Your task to perform on an android device: Do I have any events tomorrow? Image 0: 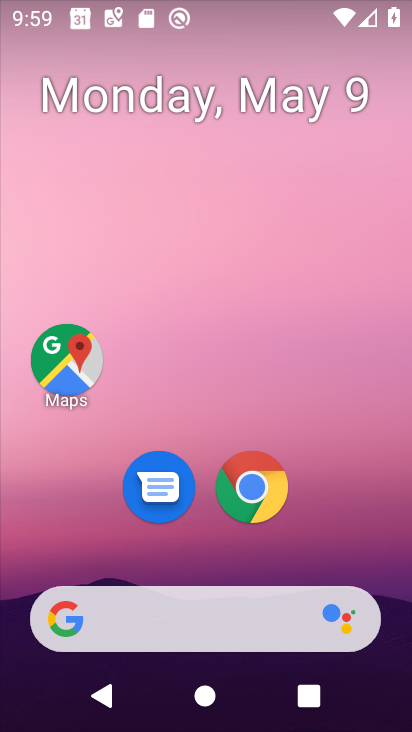
Step 0: drag from (344, 504) to (236, 39)
Your task to perform on an android device: Do I have any events tomorrow? Image 1: 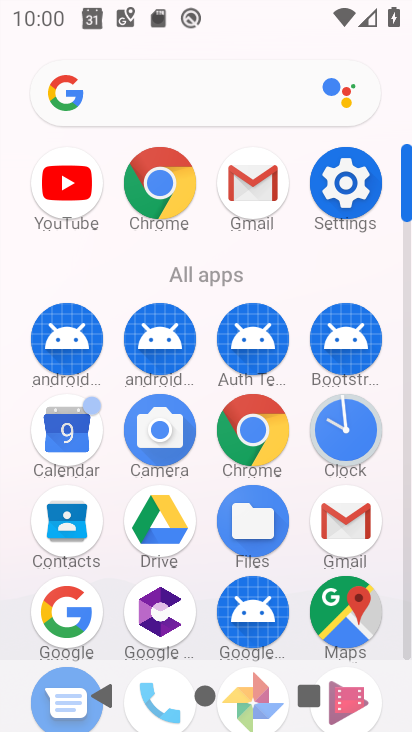
Step 1: drag from (8, 605) to (9, 243)
Your task to perform on an android device: Do I have any events tomorrow? Image 2: 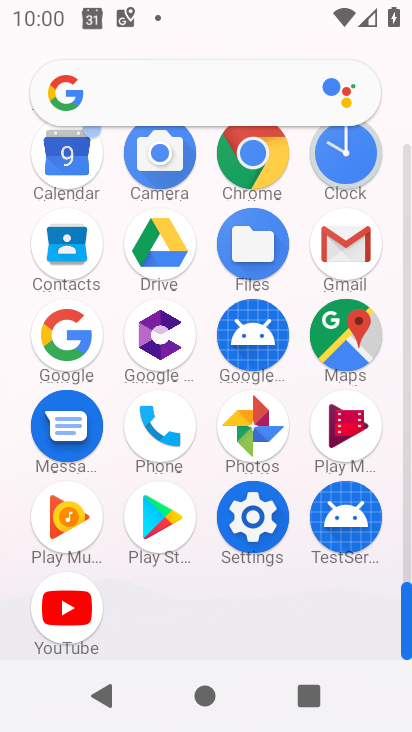
Step 2: drag from (24, 225) to (25, 565)
Your task to perform on an android device: Do I have any events tomorrow? Image 3: 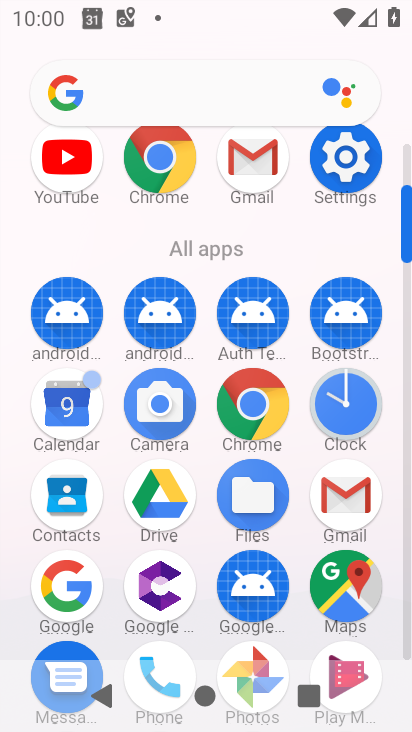
Step 3: click (69, 403)
Your task to perform on an android device: Do I have any events tomorrow? Image 4: 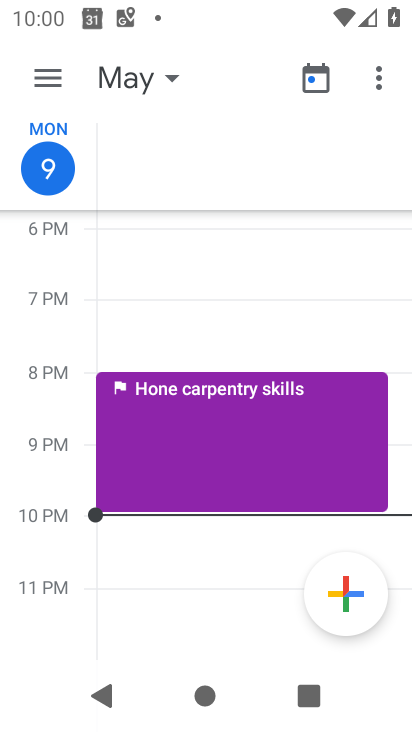
Step 4: click (57, 253)
Your task to perform on an android device: Do I have any events tomorrow? Image 5: 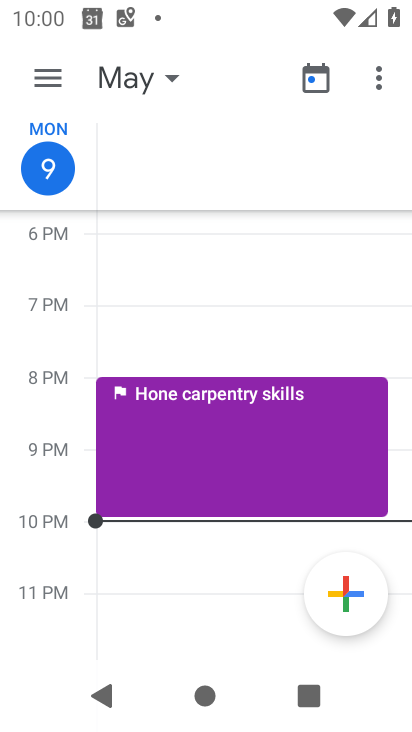
Step 5: task complete